Your task to perform on an android device: Open settings on Google Maps Image 0: 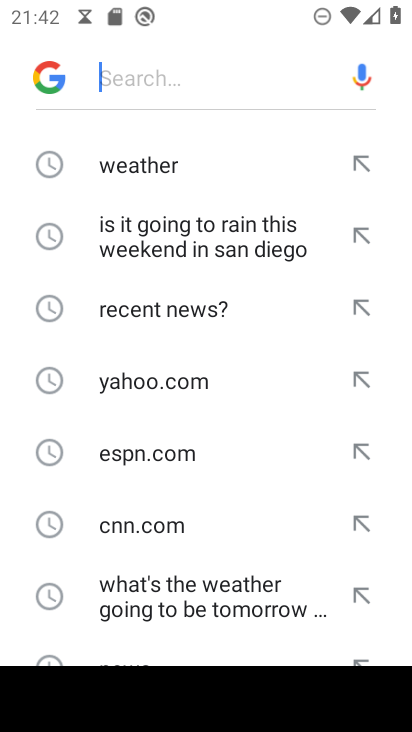
Step 0: press home button
Your task to perform on an android device: Open settings on Google Maps Image 1: 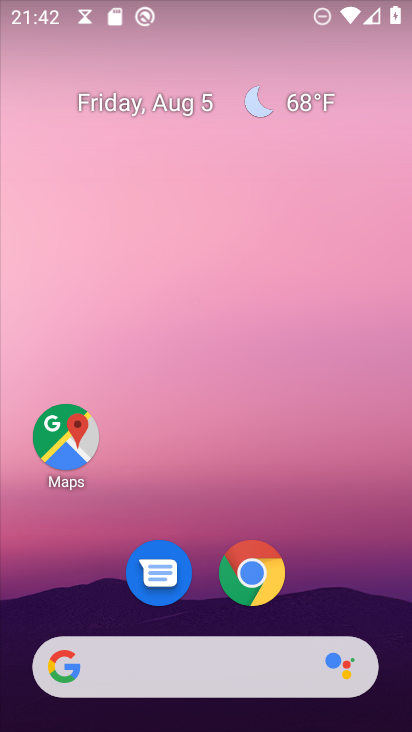
Step 1: click (66, 438)
Your task to perform on an android device: Open settings on Google Maps Image 2: 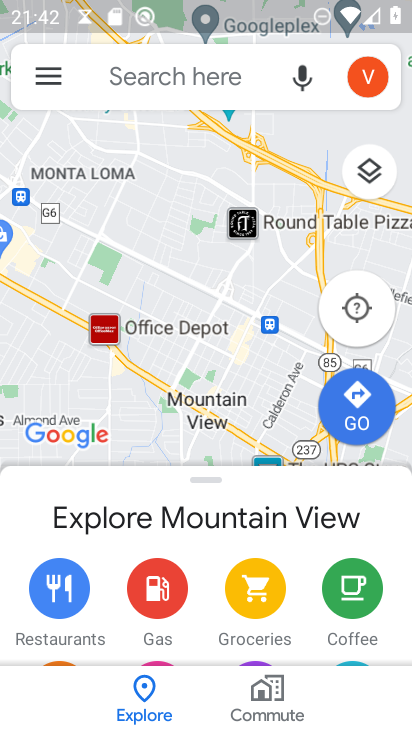
Step 2: click (50, 80)
Your task to perform on an android device: Open settings on Google Maps Image 3: 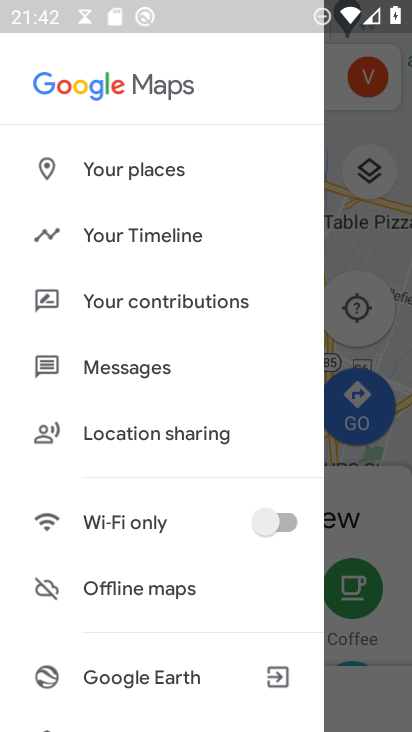
Step 3: drag from (108, 554) to (205, 211)
Your task to perform on an android device: Open settings on Google Maps Image 4: 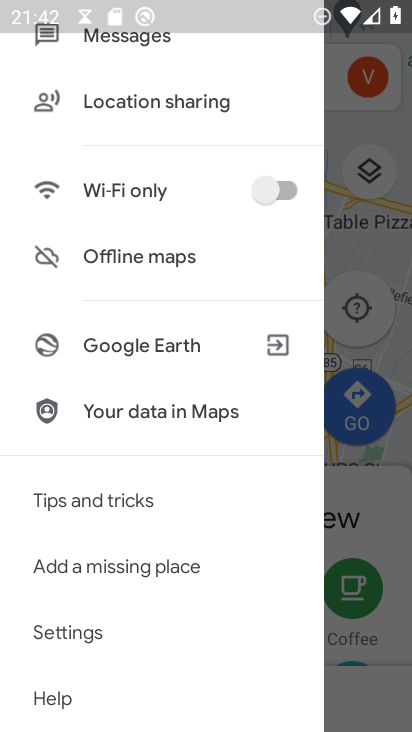
Step 4: click (53, 641)
Your task to perform on an android device: Open settings on Google Maps Image 5: 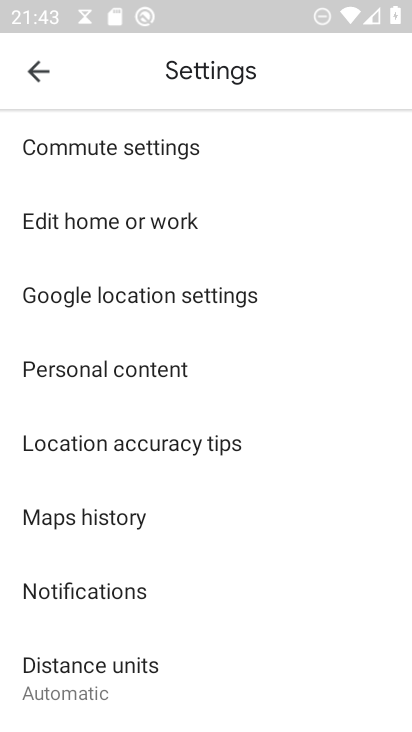
Step 5: task complete